Your task to perform on an android device: Go to Google Image 0: 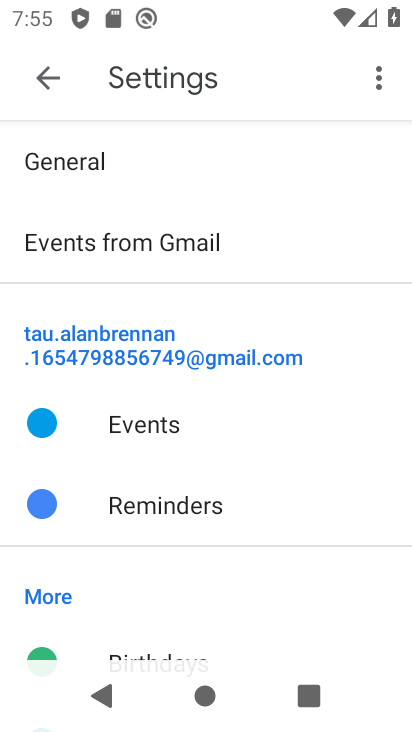
Step 0: press back button
Your task to perform on an android device: Go to Google Image 1: 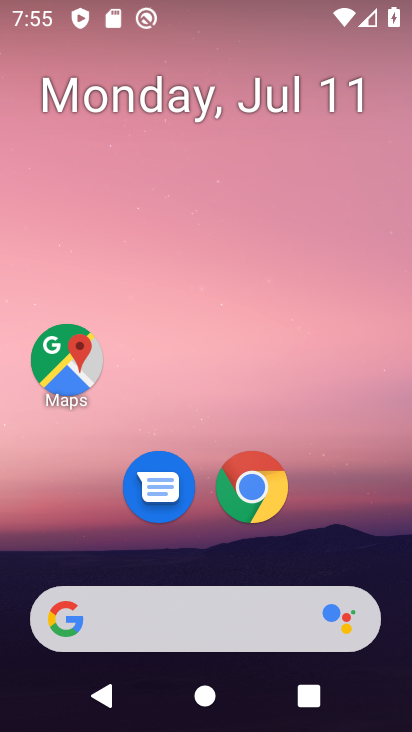
Step 1: drag from (153, 551) to (276, 29)
Your task to perform on an android device: Go to Google Image 2: 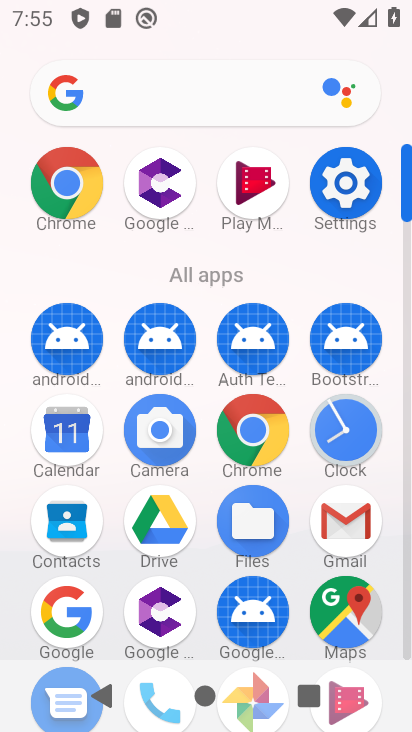
Step 2: click (80, 611)
Your task to perform on an android device: Go to Google Image 3: 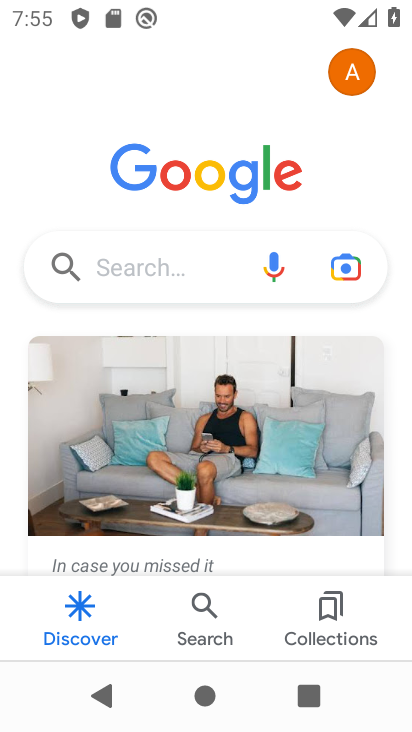
Step 3: task complete